Your task to perform on an android device: Open network settings Image 0: 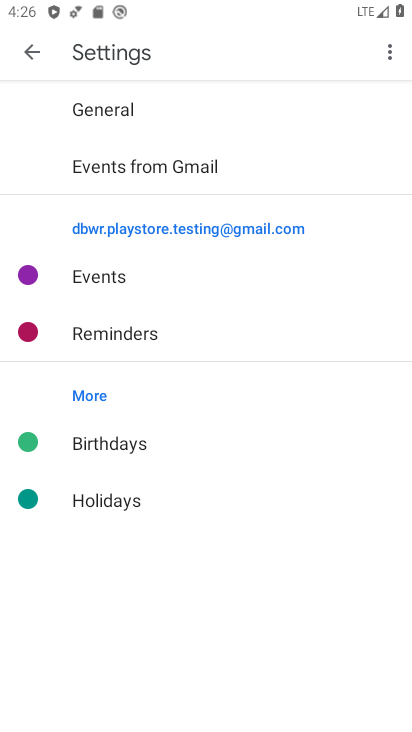
Step 0: press back button
Your task to perform on an android device: Open network settings Image 1: 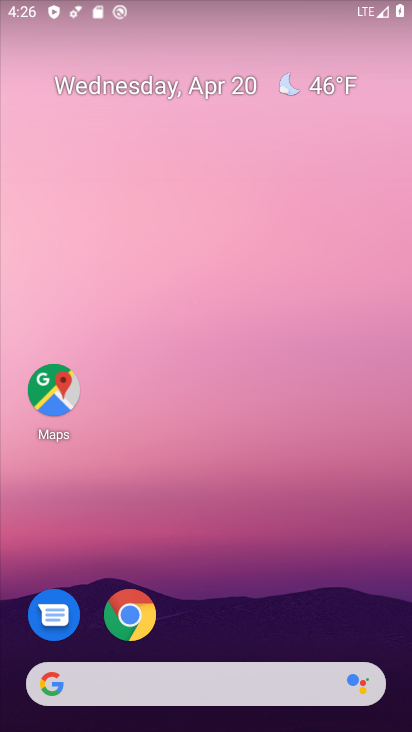
Step 1: drag from (215, 569) to (406, 1)
Your task to perform on an android device: Open network settings Image 2: 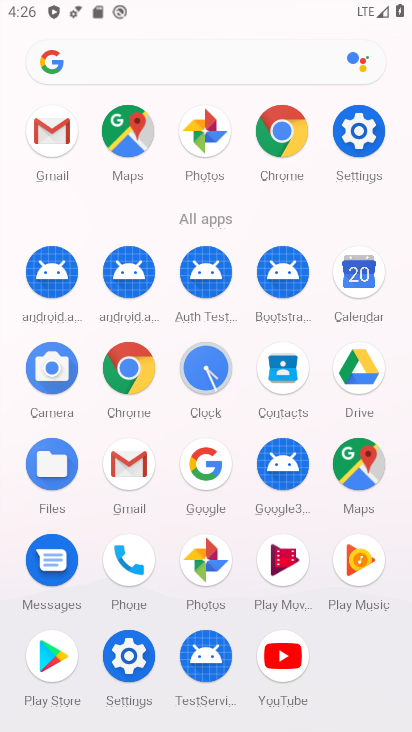
Step 2: click (369, 123)
Your task to perform on an android device: Open network settings Image 3: 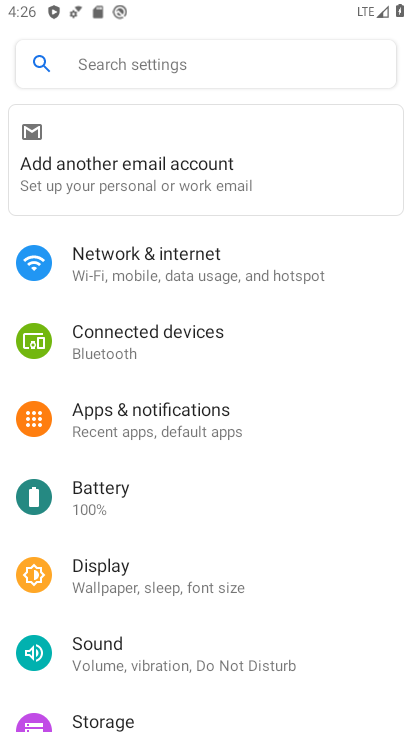
Step 3: click (207, 264)
Your task to perform on an android device: Open network settings Image 4: 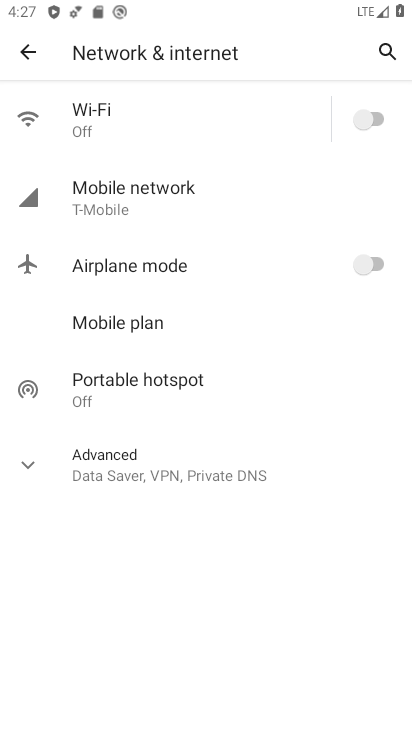
Step 4: task complete